Your task to perform on an android device: install app "Mercado Libre" Image 0: 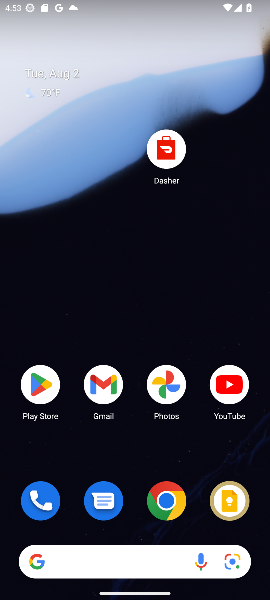
Step 0: click (39, 396)
Your task to perform on an android device: install app "Mercado Libre" Image 1: 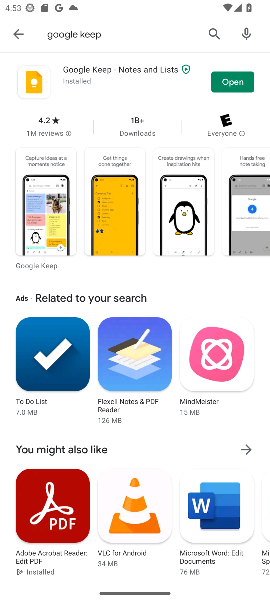
Step 1: click (212, 33)
Your task to perform on an android device: install app "Mercado Libre" Image 2: 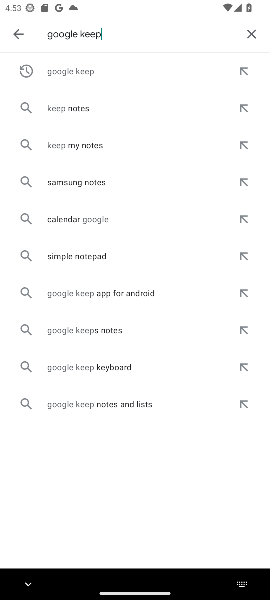
Step 2: click (257, 31)
Your task to perform on an android device: install app "Mercado Libre" Image 3: 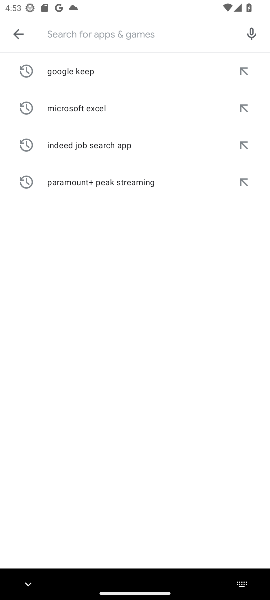
Step 3: type "Mercado Libre"
Your task to perform on an android device: install app "Mercado Libre" Image 4: 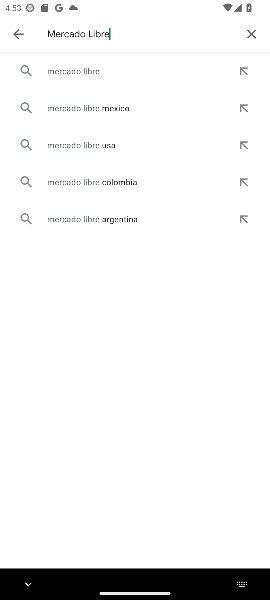
Step 4: click (81, 66)
Your task to perform on an android device: install app "Mercado Libre" Image 5: 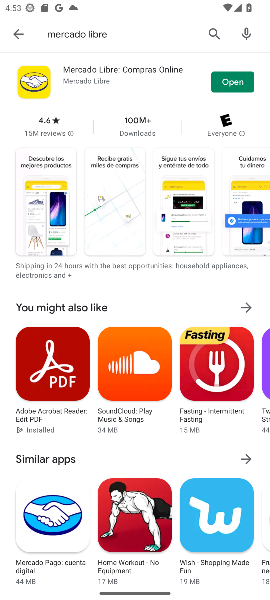
Step 5: task complete